Your task to perform on an android device: Open Youtube and go to the subscriptions tab Image 0: 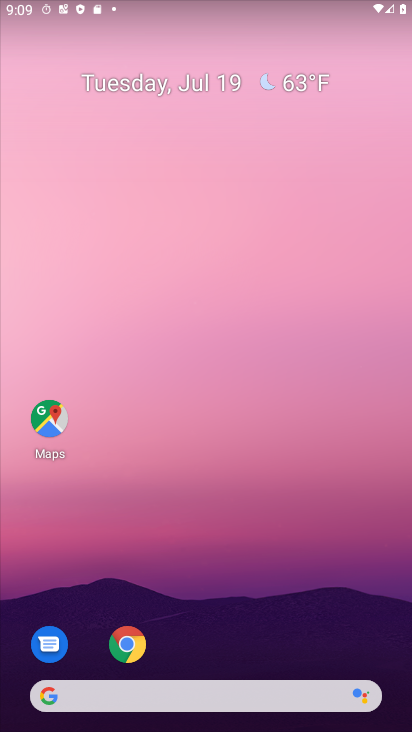
Step 0: drag from (210, 622) to (248, 251)
Your task to perform on an android device: Open Youtube and go to the subscriptions tab Image 1: 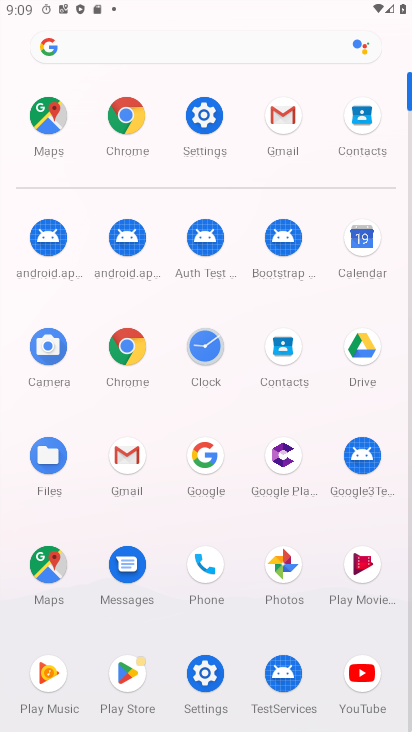
Step 1: click (367, 654)
Your task to perform on an android device: Open Youtube and go to the subscriptions tab Image 2: 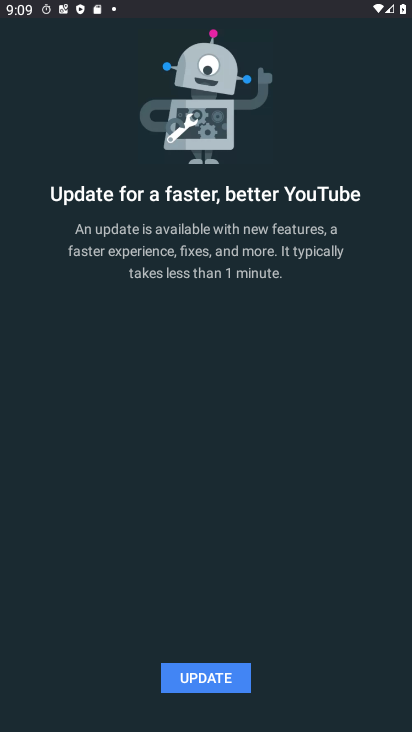
Step 2: click (215, 661)
Your task to perform on an android device: Open Youtube and go to the subscriptions tab Image 3: 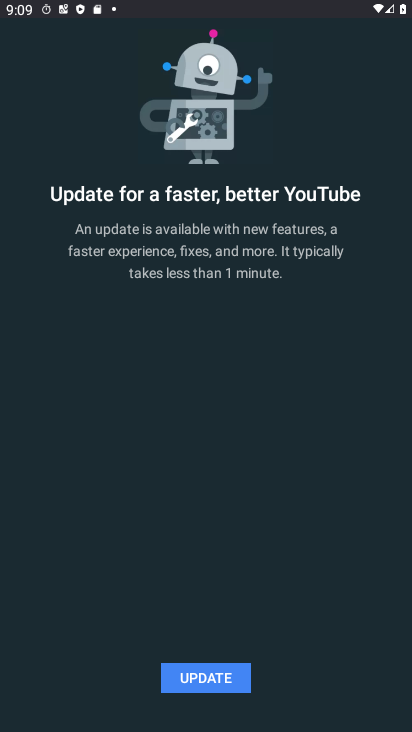
Step 3: click (211, 674)
Your task to perform on an android device: Open Youtube and go to the subscriptions tab Image 4: 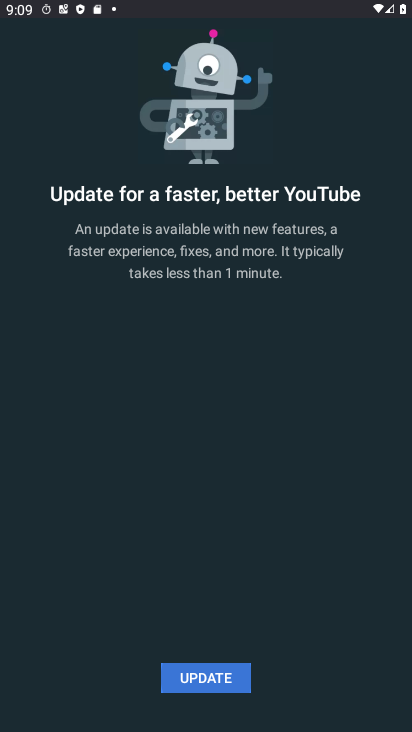
Step 4: click (211, 674)
Your task to perform on an android device: Open Youtube and go to the subscriptions tab Image 5: 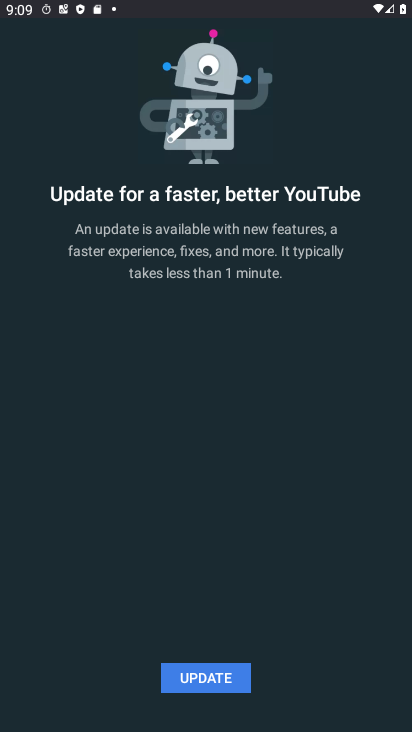
Step 5: click (211, 674)
Your task to perform on an android device: Open Youtube and go to the subscriptions tab Image 6: 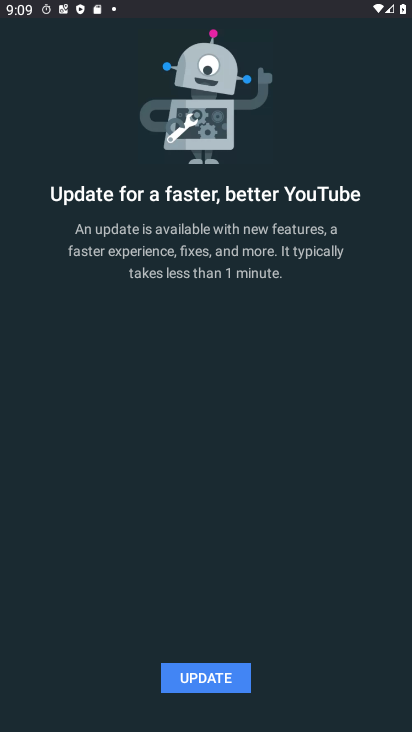
Step 6: click (211, 674)
Your task to perform on an android device: Open Youtube and go to the subscriptions tab Image 7: 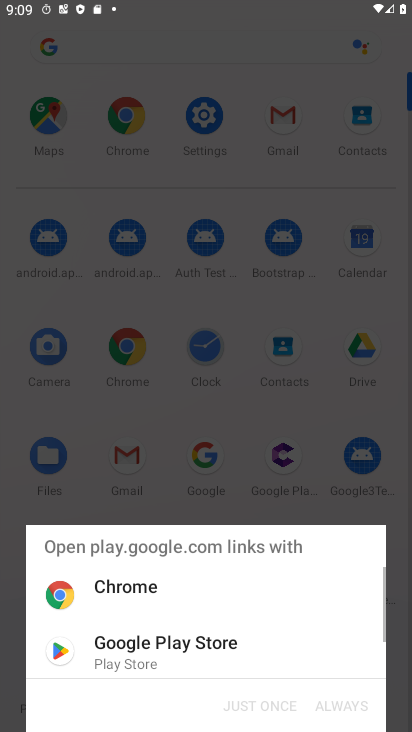
Step 7: click (210, 673)
Your task to perform on an android device: Open Youtube and go to the subscriptions tab Image 8: 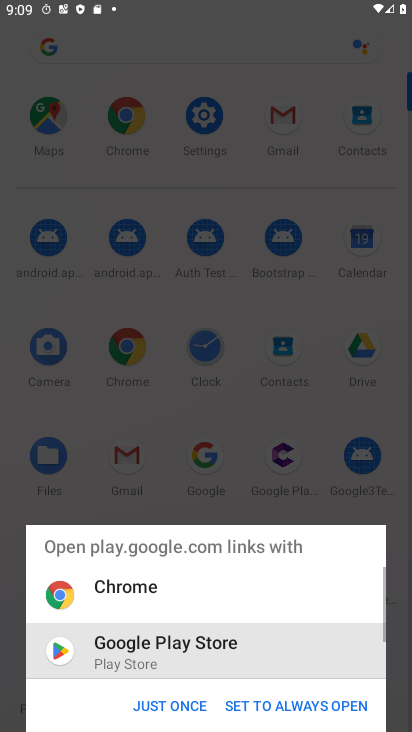
Step 8: click (130, 659)
Your task to perform on an android device: Open Youtube and go to the subscriptions tab Image 9: 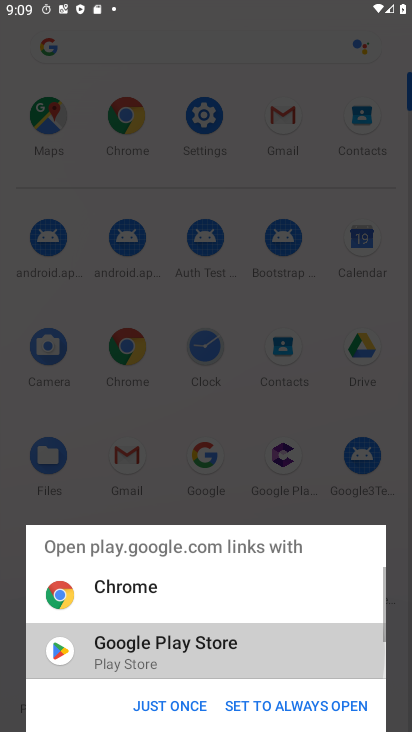
Step 9: click (129, 660)
Your task to perform on an android device: Open Youtube and go to the subscriptions tab Image 10: 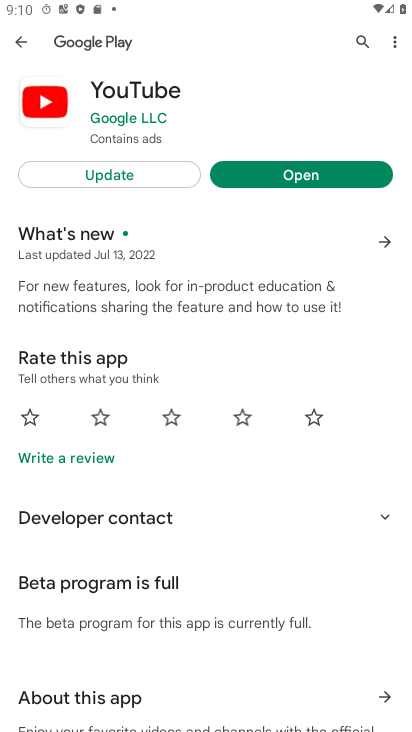
Step 10: click (135, 172)
Your task to perform on an android device: Open Youtube and go to the subscriptions tab Image 11: 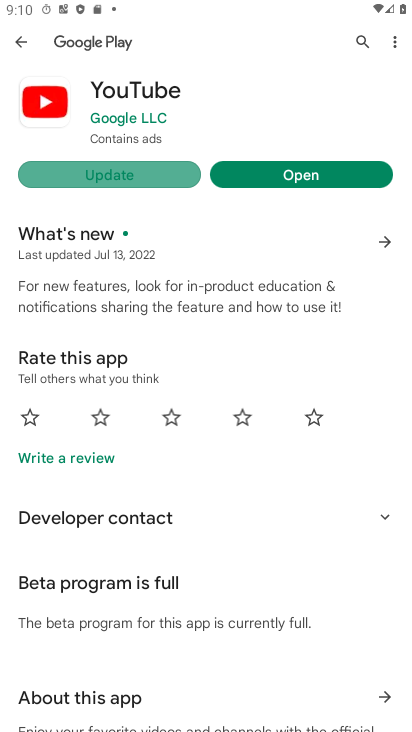
Step 11: click (138, 173)
Your task to perform on an android device: Open Youtube and go to the subscriptions tab Image 12: 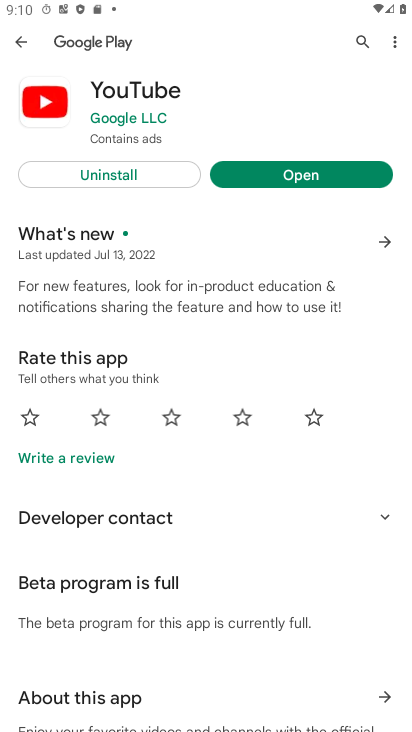
Step 12: click (319, 171)
Your task to perform on an android device: Open Youtube and go to the subscriptions tab Image 13: 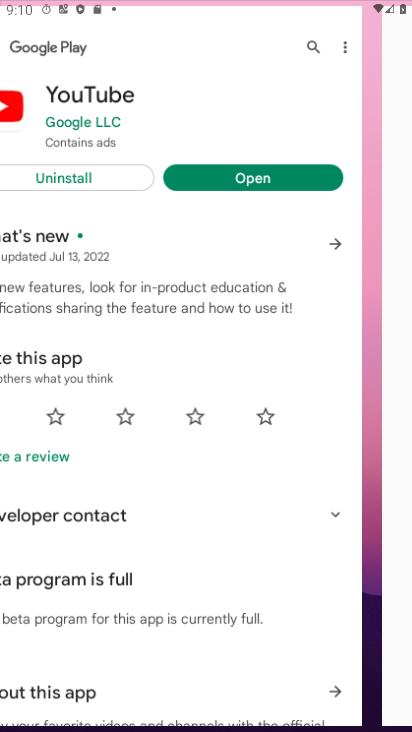
Step 13: click (319, 171)
Your task to perform on an android device: Open Youtube and go to the subscriptions tab Image 14: 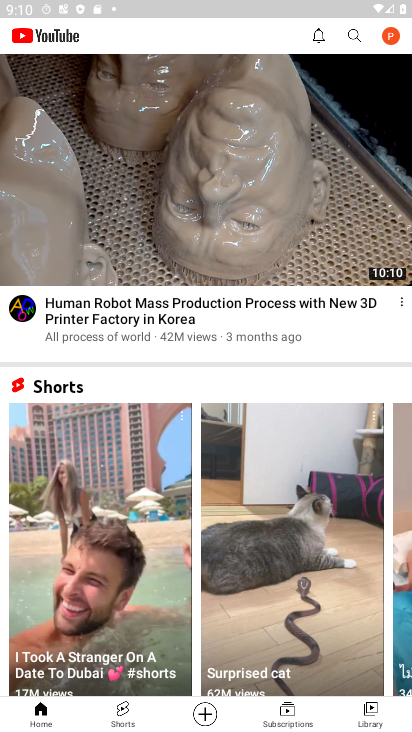
Step 14: click (287, 704)
Your task to perform on an android device: Open Youtube and go to the subscriptions tab Image 15: 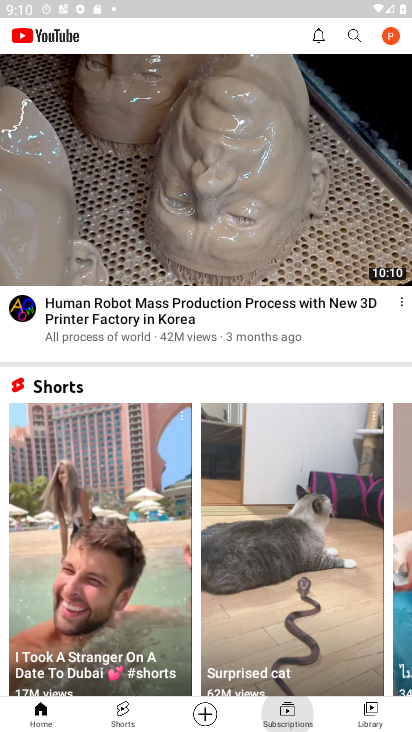
Step 15: click (287, 705)
Your task to perform on an android device: Open Youtube and go to the subscriptions tab Image 16: 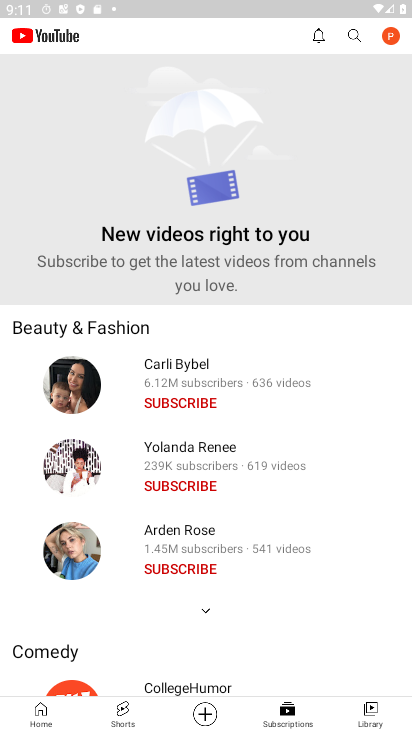
Step 16: task complete